Your task to perform on an android device: Add "asus rog" to the cart on bestbuy, then select checkout. Image 0: 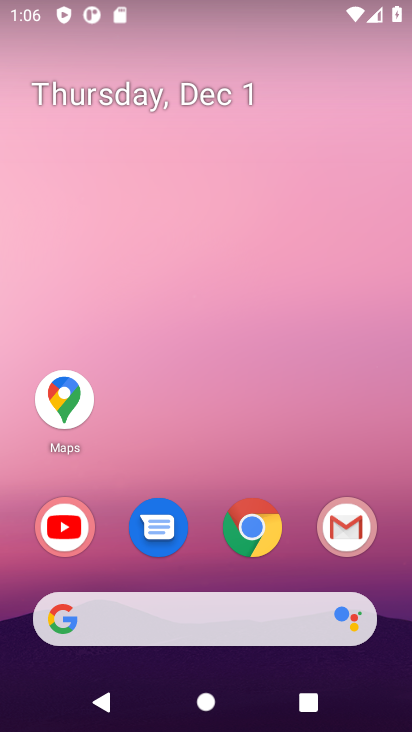
Step 0: click (249, 522)
Your task to perform on an android device: Add "asus rog" to the cart on bestbuy, then select checkout. Image 1: 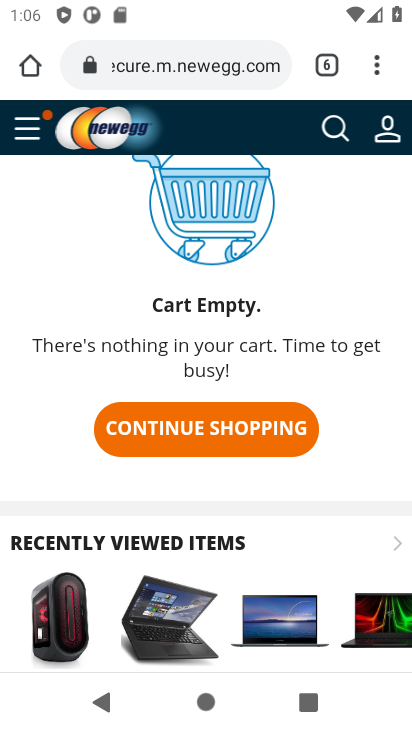
Step 1: click (195, 74)
Your task to perform on an android device: Add "asus rog" to the cart on bestbuy, then select checkout. Image 2: 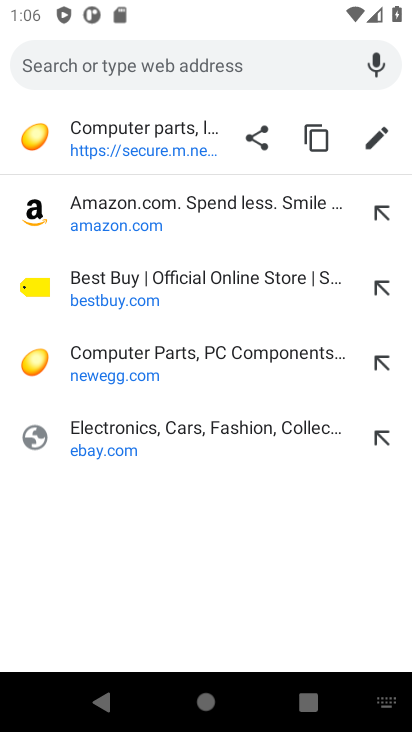
Step 2: click (95, 280)
Your task to perform on an android device: Add "asus rog" to the cart on bestbuy, then select checkout. Image 3: 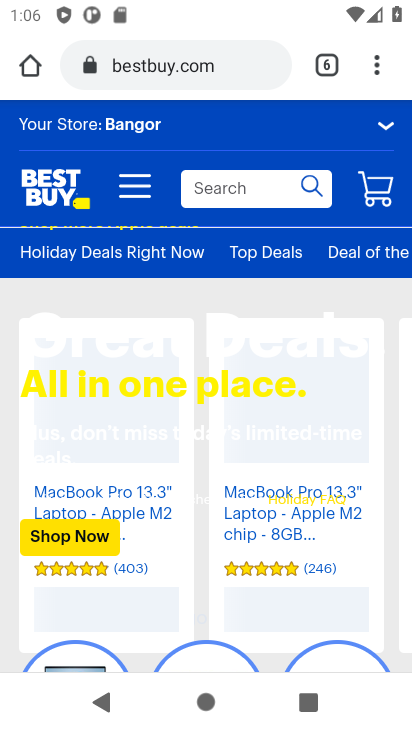
Step 3: click (187, 191)
Your task to perform on an android device: Add "asus rog" to the cart on bestbuy, then select checkout. Image 4: 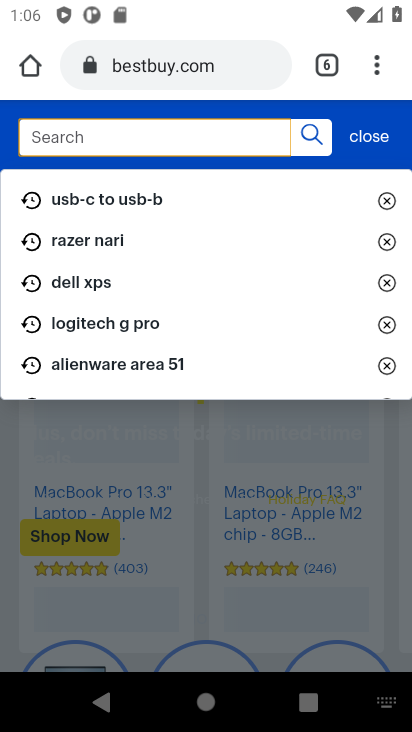
Step 4: type "asus rog"
Your task to perform on an android device: Add "asus rog" to the cart on bestbuy, then select checkout. Image 5: 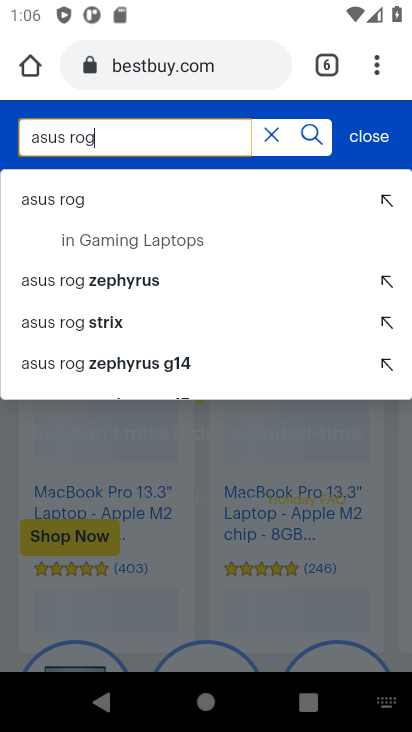
Step 5: click (44, 203)
Your task to perform on an android device: Add "asus rog" to the cart on bestbuy, then select checkout. Image 6: 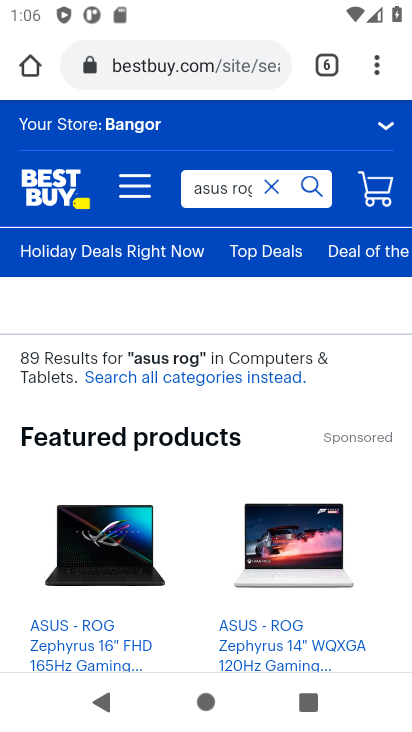
Step 6: drag from (160, 405) to (138, 134)
Your task to perform on an android device: Add "asus rog" to the cart on bestbuy, then select checkout. Image 7: 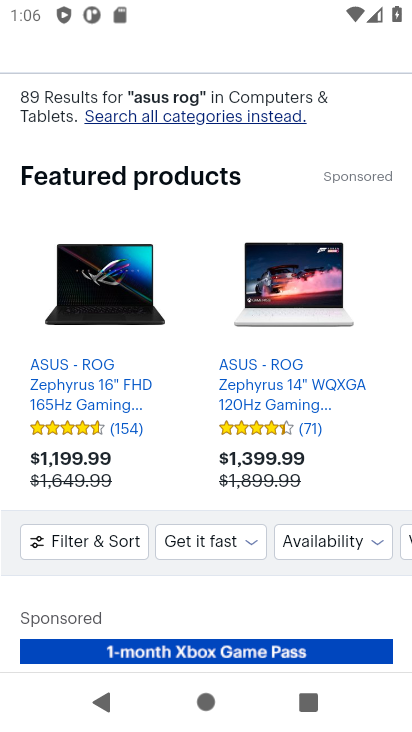
Step 7: drag from (164, 574) to (137, 190)
Your task to perform on an android device: Add "asus rog" to the cart on bestbuy, then select checkout. Image 8: 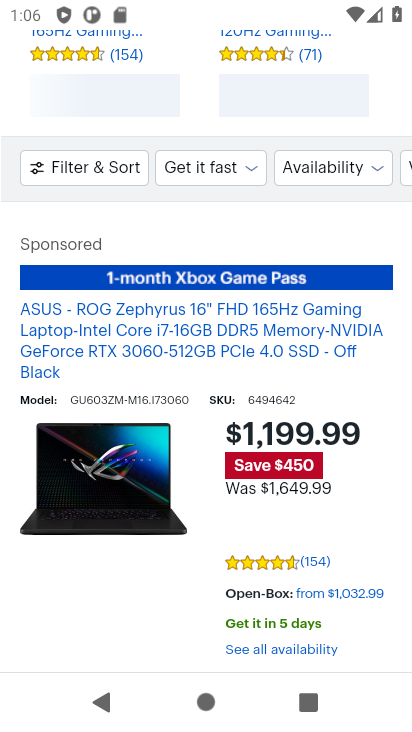
Step 8: drag from (179, 498) to (178, 261)
Your task to perform on an android device: Add "asus rog" to the cart on bestbuy, then select checkout. Image 9: 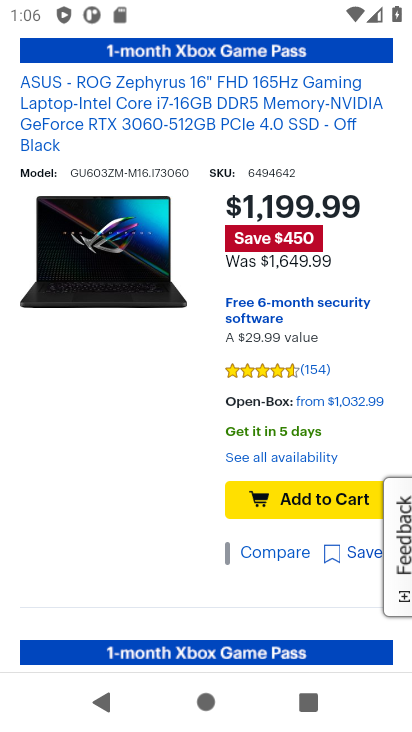
Step 9: click (306, 503)
Your task to perform on an android device: Add "asus rog" to the cart on bestbuy, then select checkout. Image 10: 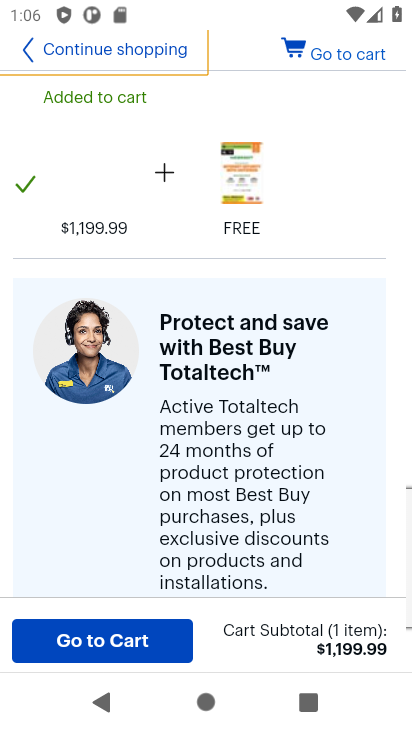
Step 10: click (329, 51)
Your task to perform on an android device: Add "asus rog" to the cart on bestbuy, then select checkout. Image 11: 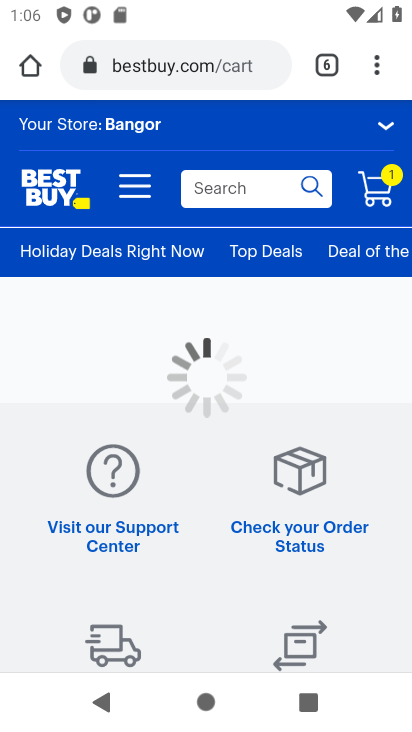
Step 11: drag from (244, 392) to (233, 109)
Your task to perform on an android device: Add "asus rog" to the cart on bestbuy, then select checkout. Image 12: 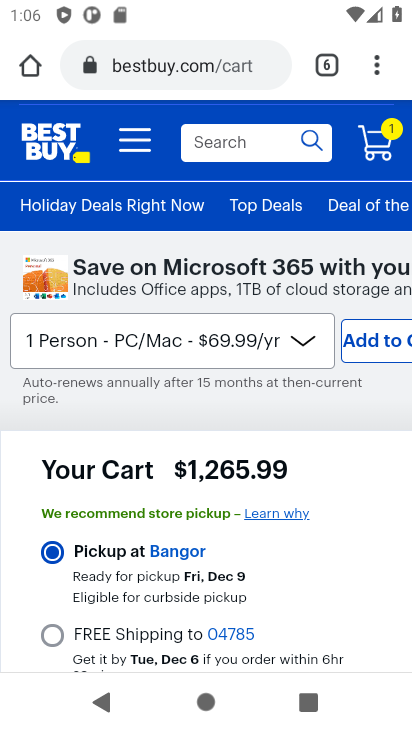
Step 12: drag from (197, 514) to (185, 114)
Your task to perform on an android device: Add "asus rog" to the cart on bestbuy, then select checkout. Image 13: 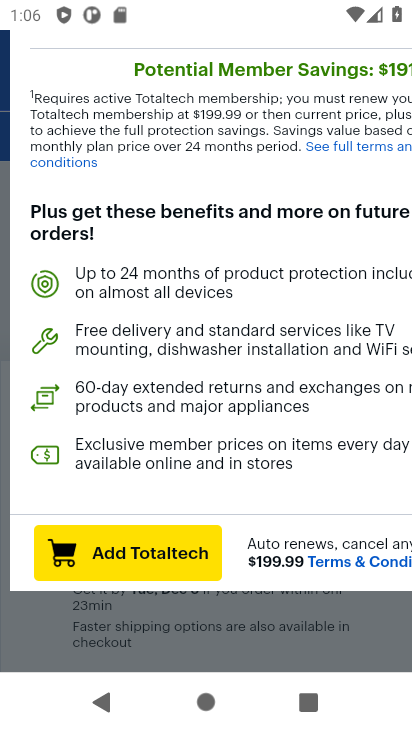
Step 13: click (353, 618)
Your task to perform on an android device: Add "asus rog" to the cart on bestbuy, then select checkout. Image 14: 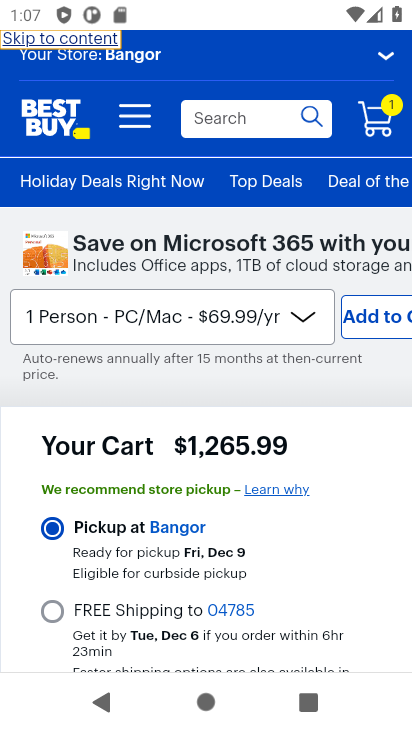
Step 14: drag from (188, 452) to (129, 88)
Your task to perform on an android device: Add "asus rog" to the cart on bestbuy, then select checkout. Image 15: 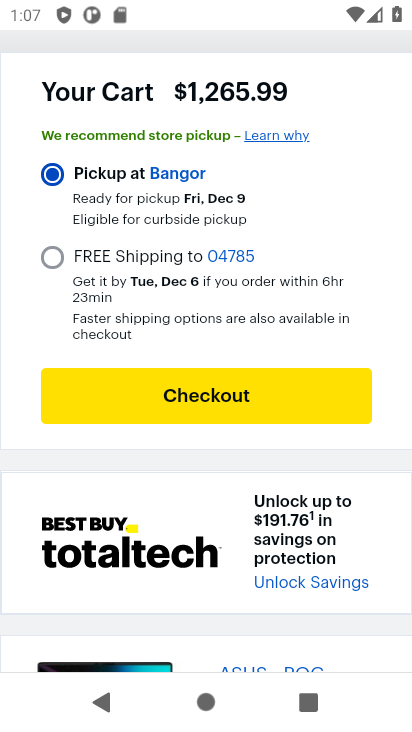
Step 15: click (199, 398)
Your task to perform on an android device: Add "asus rog" to the cart on bestbuy, then select checkout. Image 16: 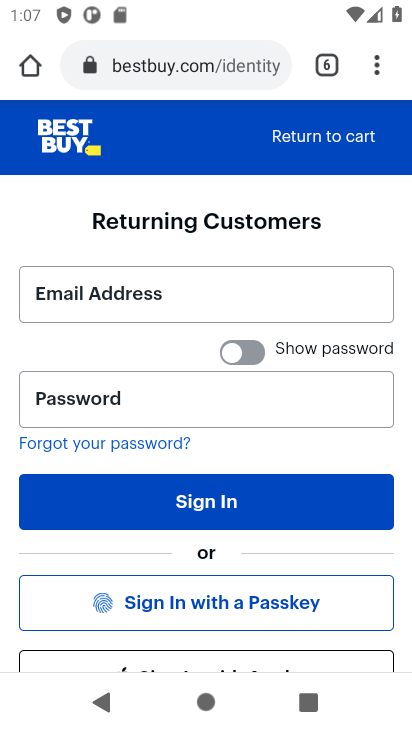
Step 16: task complete